Your task to perform on an android device: turn smart compose on in the gmail app Image 0: 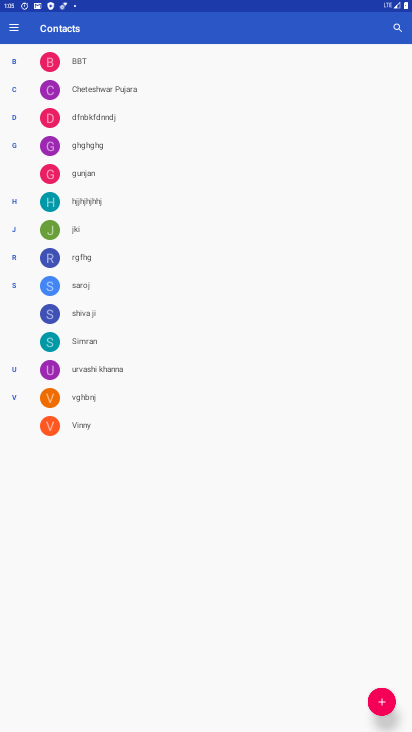
Step 0: press home button
Your task to perform on an android device: turn smart compose on in the gmail app Image 1: 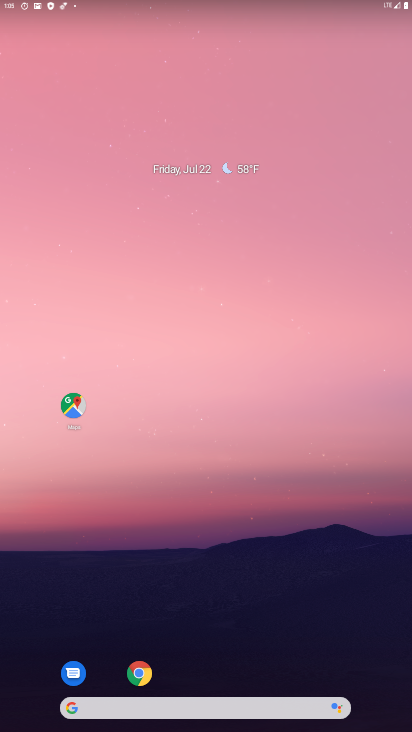
Step 1: drag from (333, 551) to (342, 101)
Your task to perform on an android device: turn smart compose on in the gmail app Image 2: 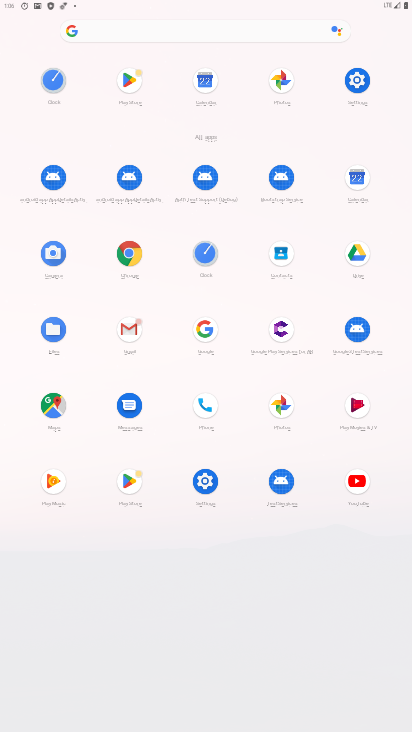
Step 2: click (138, 321)
Your task to perform on an android device: turn smart compose on in the gmail app Image 3: 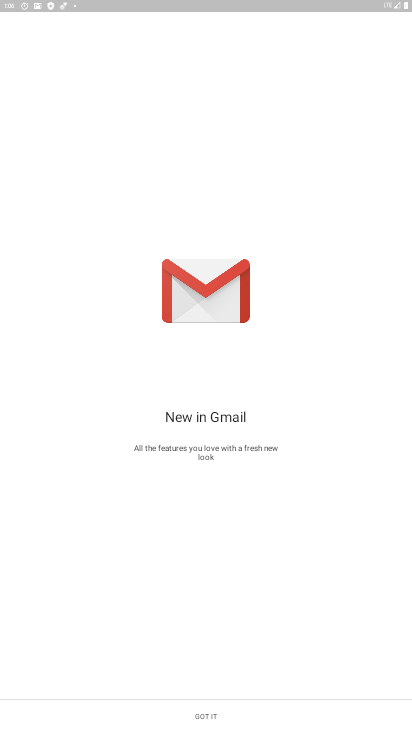
Step 3: click (262, 713)
Your task to perform on an android device: turn smart compose on in the gmail app Image 4: 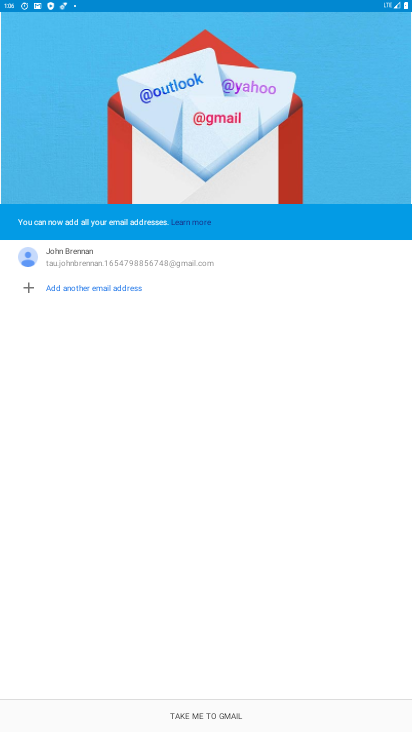
Step 4: click (246, 711)
Your task to perform on an android device: turn smart compose on in the gmail app Image 5: 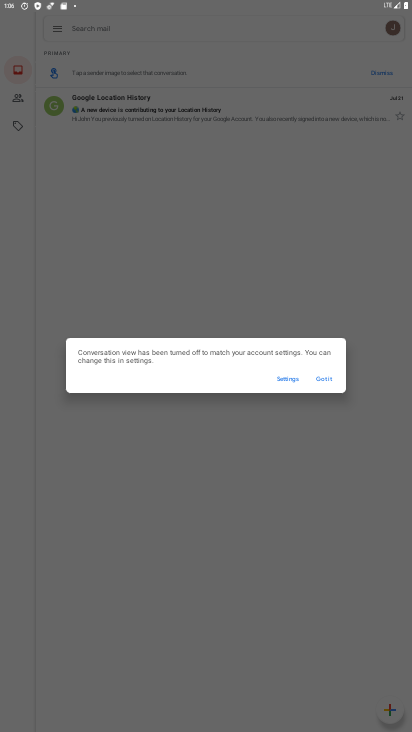
Step 5: click (323, 375)
Your task to perform on an android device: turn smart compose on in the gmail app Image 6: 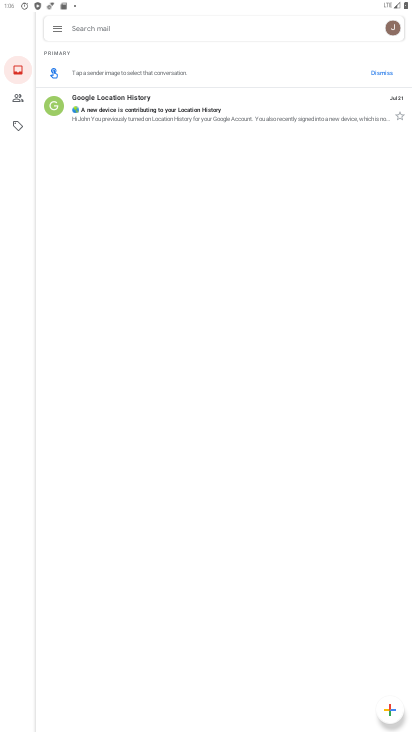
Step 6: click (57, 30)
Your task to perform on an android device: turn smart compose on in the gmail app Image 7: 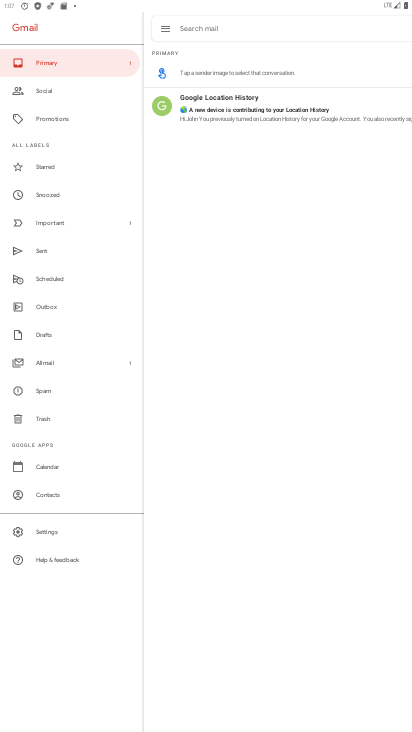
Step 7: click (53, 530)
Your task to perform on an android device: turn smart compose on in the gmail app Image 8: 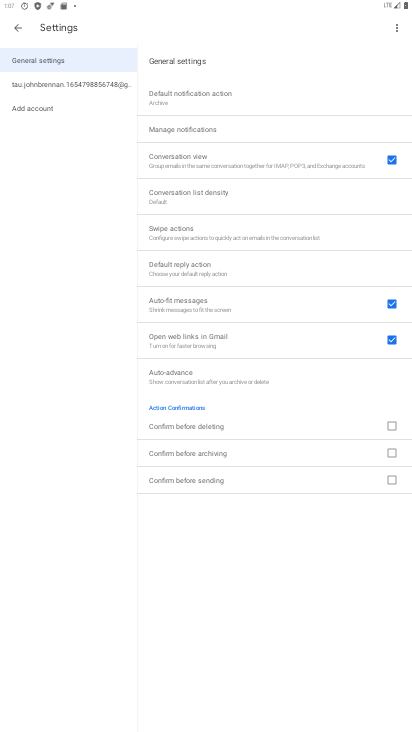
Step 8: click (129, 82)
Your task to perform on an android device: turn smart compose on in the gmail app Image 9: 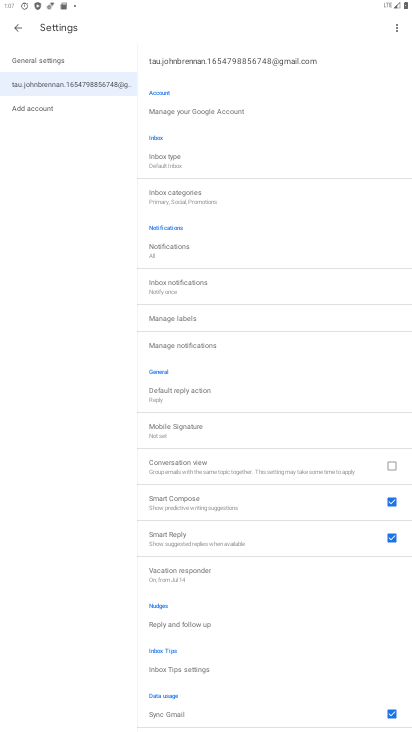
Step 9: task complete